Your task to perform on an android device: snooze an email in the gmail app Image 0: 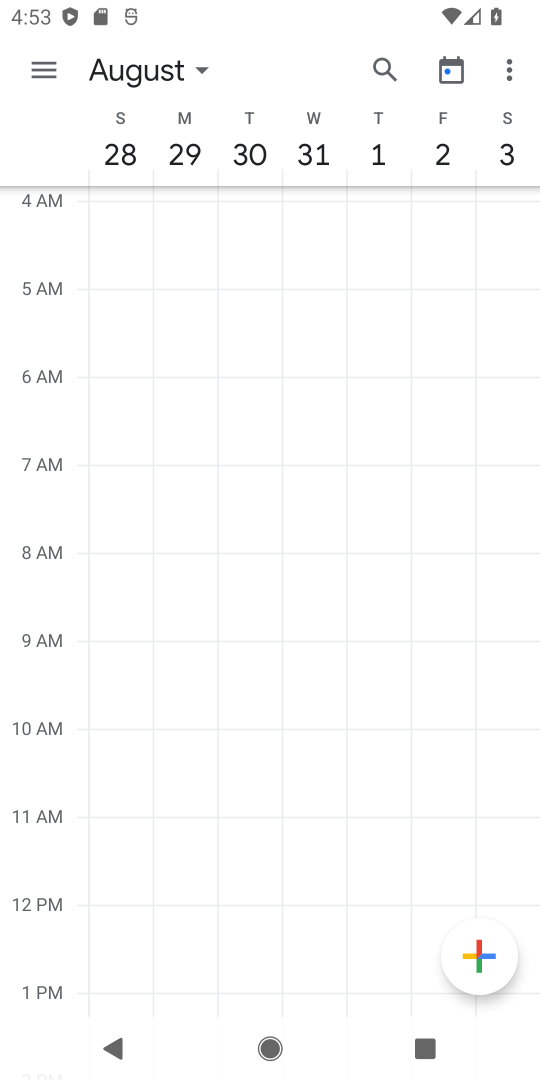
Step 0: press home button
Your task to perform on an android device: snooze an email in the gmail app Image 1: 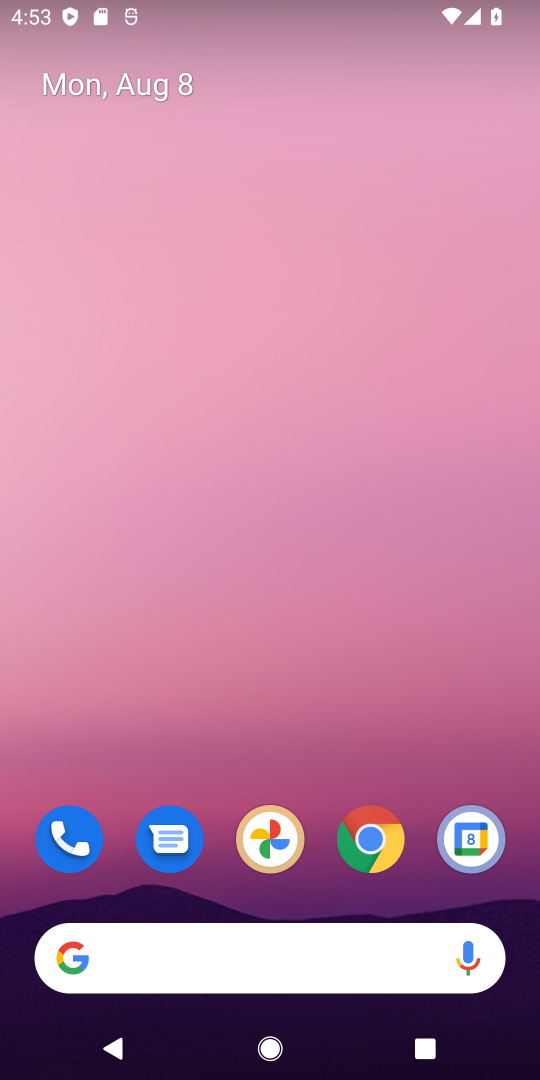
Step 1: drag from (223, 883) to (258, 264)
Your task to perform on an android device: snooze an email in the gmail app Image 2: 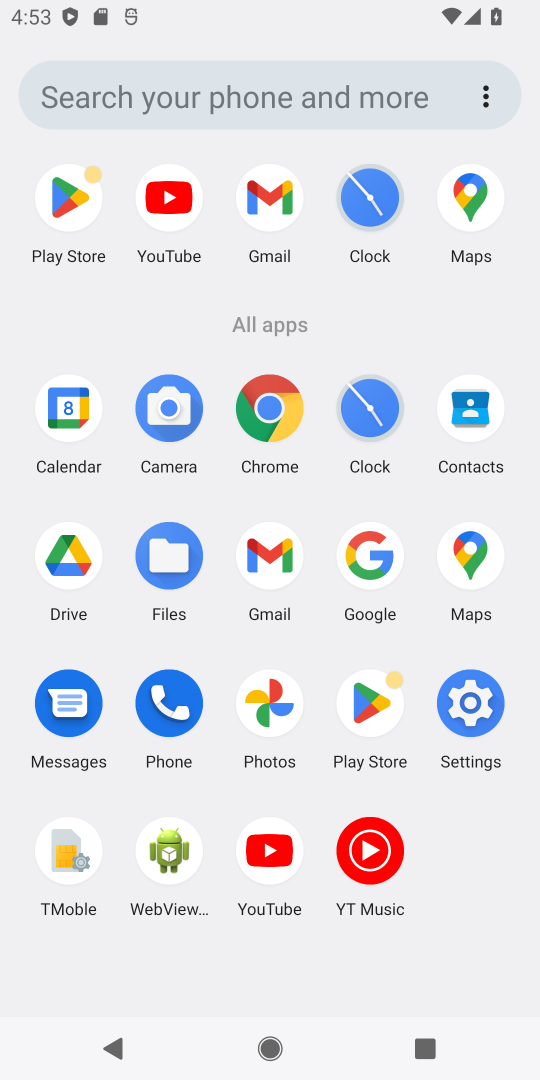
Step 2: click (282, 572)
Your task to perform on an android device: snooze an email in the gmail app Image 3: 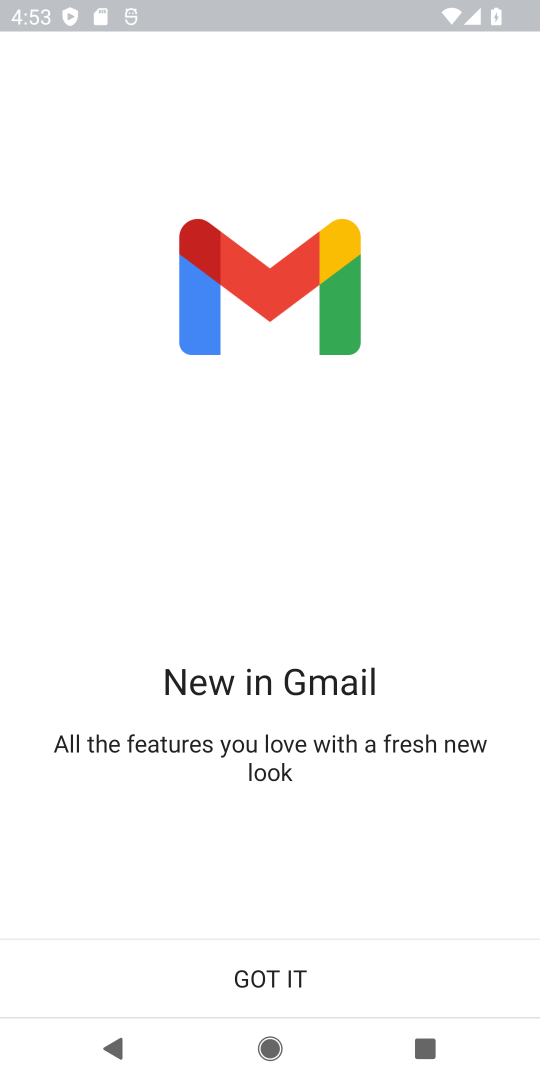
Step 3: click (305, 972)
Your task to perform on an android device: snooze an email in the gmail app Image 4: 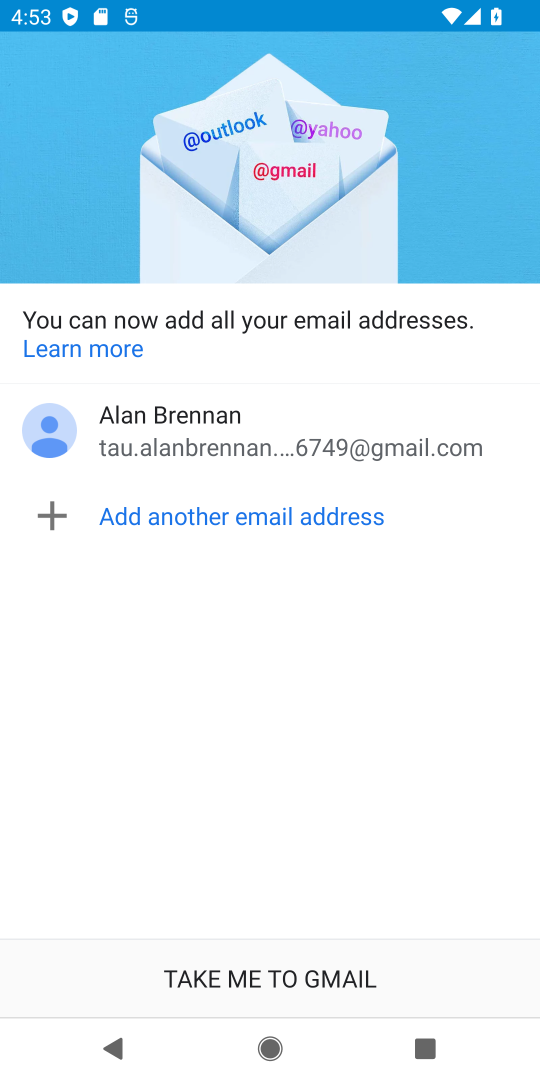
Step 4: click (298, 982)
Your task to perform on an android device: snooze an email in the gmail app Image 5: 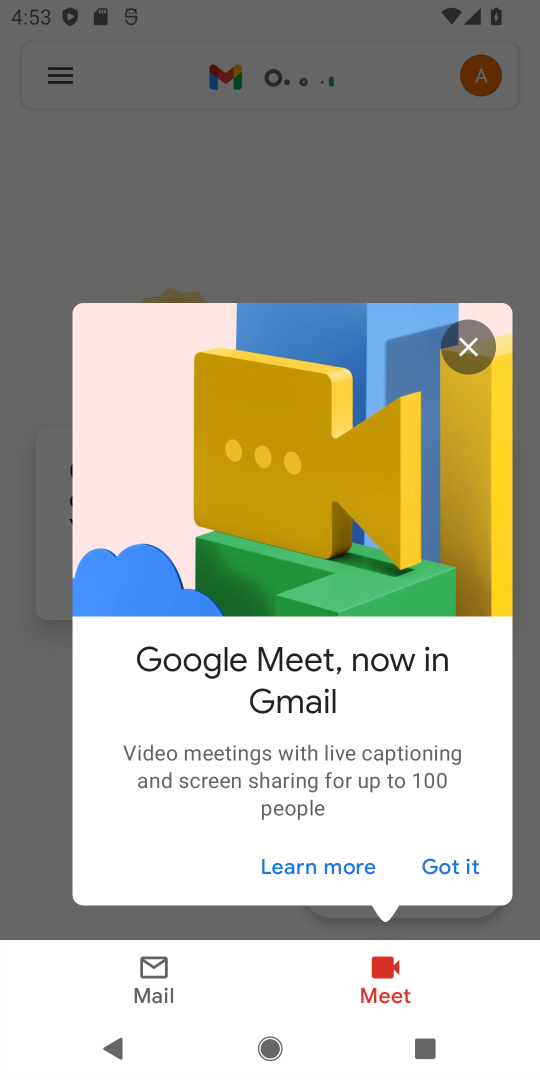
Step 5: click (474, 343)
Your task to perform on an android device: snooze an email in the gmail app Image 6: 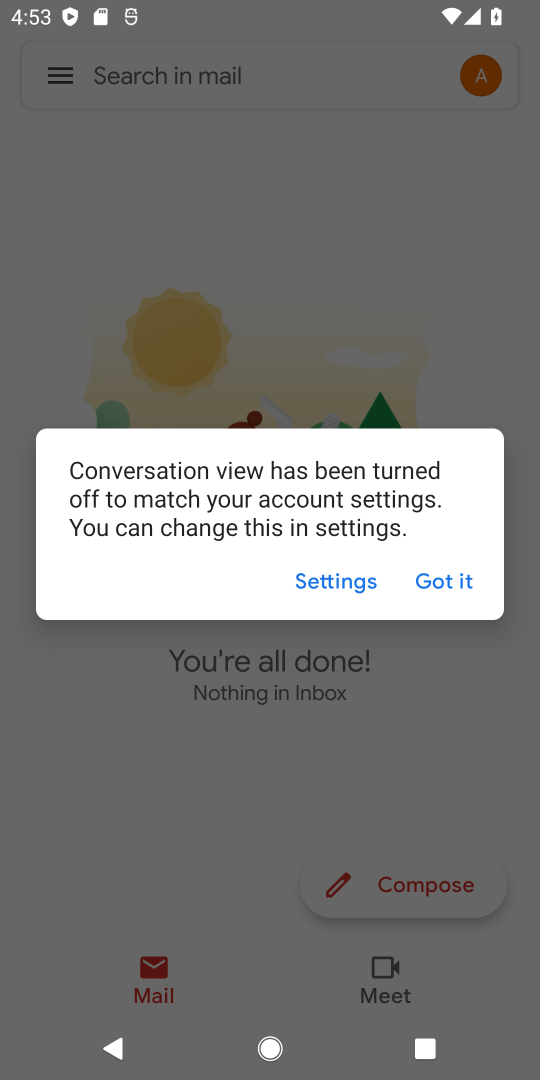
Step 6: click (437, 572)
Your task to perform on an android device: snooze an email in the gmail app Image 7: 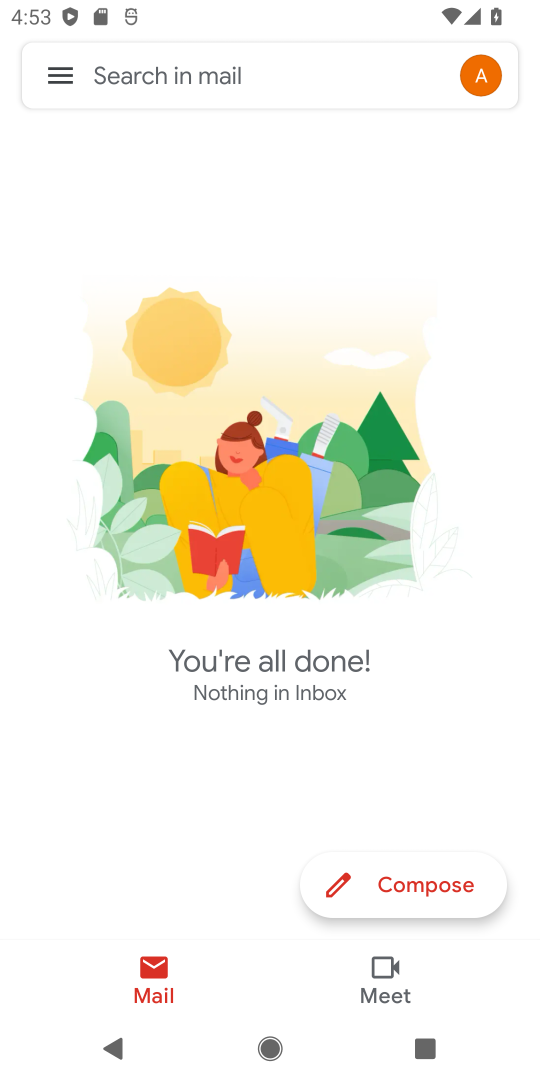
Step 7: click (63, 78)
Your task to perform on an android device: snooze an email in the gmail app Image 8: 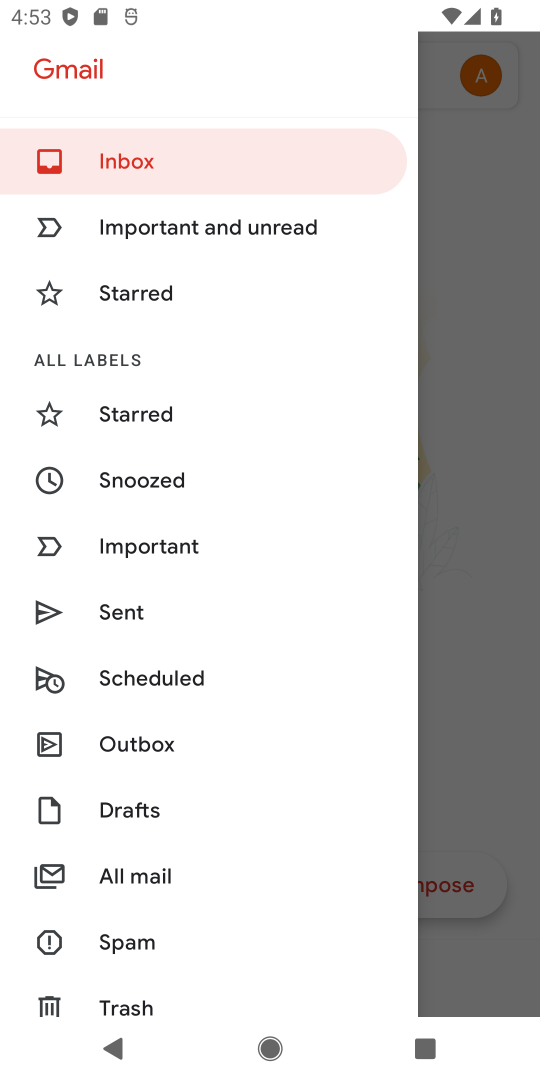
Step 8: click (498, 395)
Your task to perform on an android device: snooze an email in the gmail app Image 9: 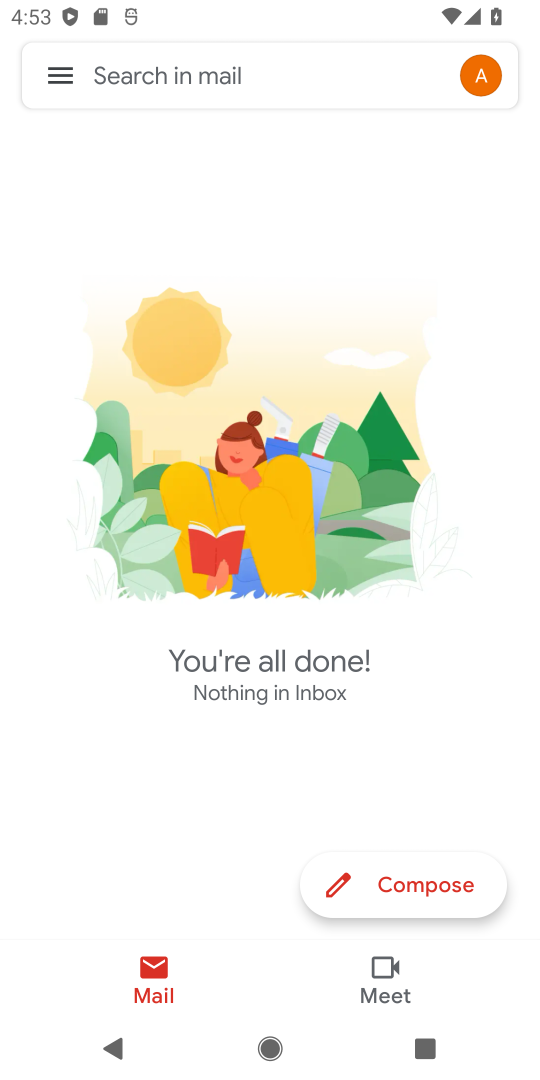
Step 9: task complete